Your task to perform on an android device: Open location settings Image 0: 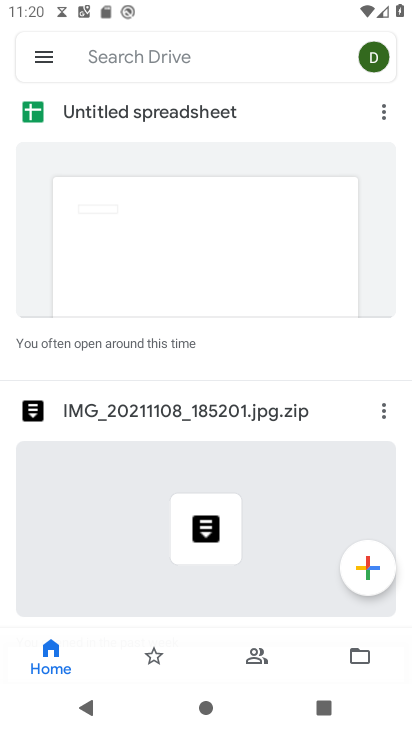
Step 0: press home button
Your task to perform on an android device: Open location settings Image 1: 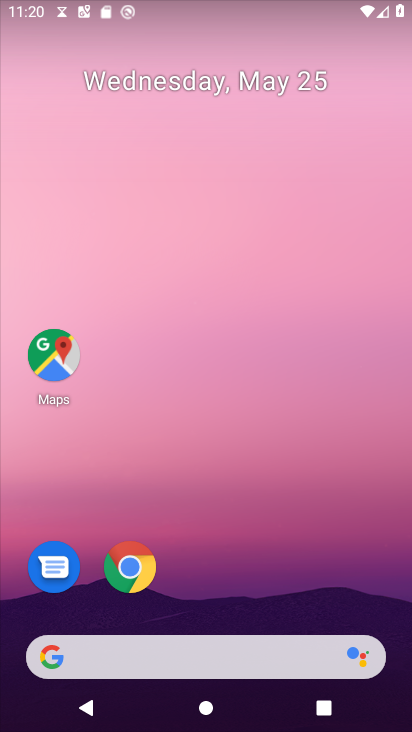
Step 1: drag from (265, 585) to (270, 52)
Your task to perform on an android device: Open location settings Image 2: 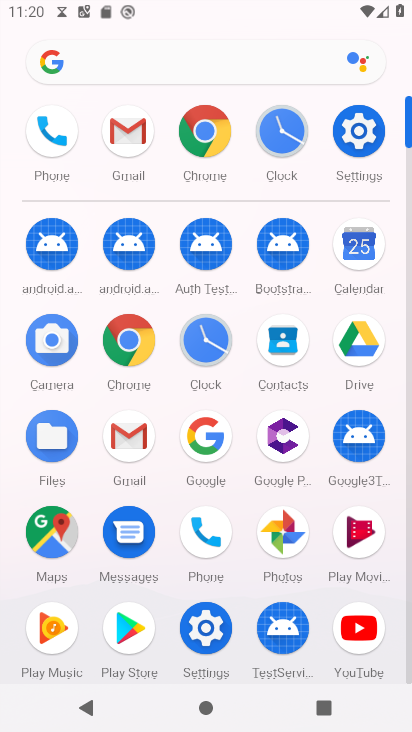
Step 2: click (367, 145)
Your task to perform on an android device: Open location settings Image 3: 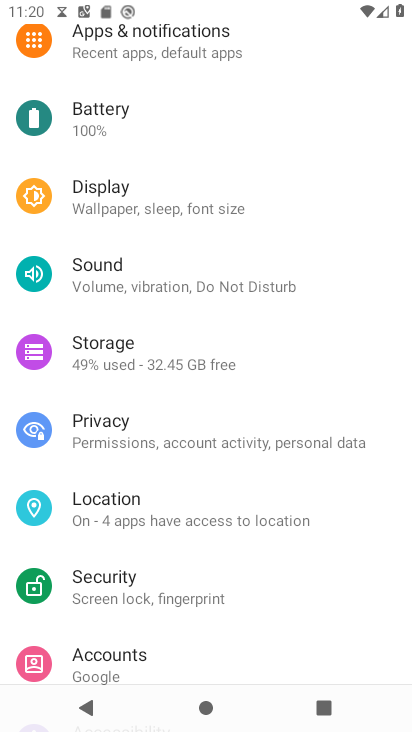
Step 3: click (186, 493)
Your task to perform on an android device: Open location settings Image 4: 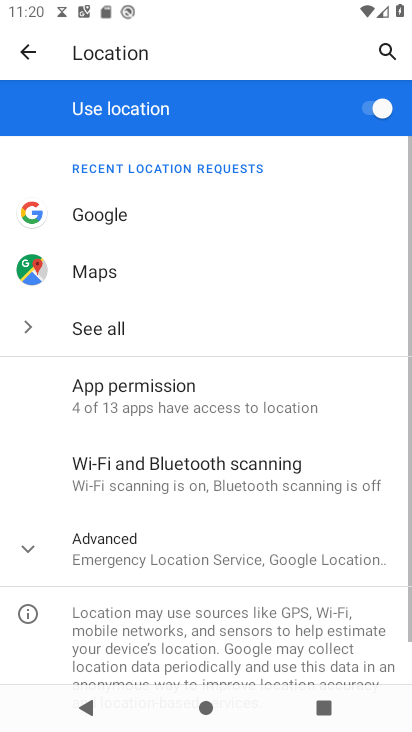
Step 4: task complete